Your task to perform on an android device: Open CNN.com Image 0: 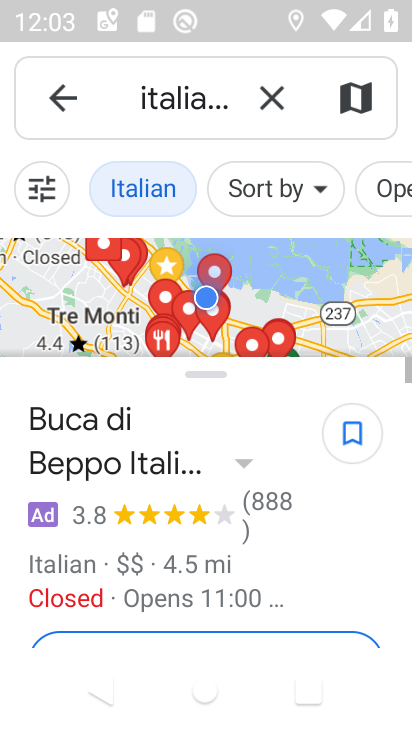
Step 0: press home button
Your task to perform on an android device: Open CNN.com Image 1: 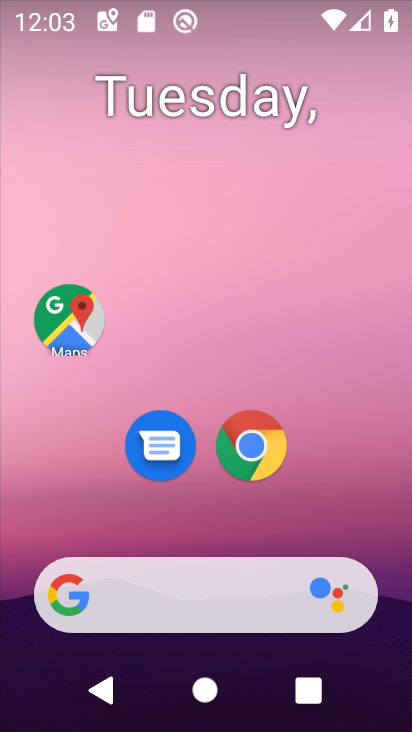
Step 1: click (257, 446)
Your task to perform on an android device: Open CNN.com Image 2: 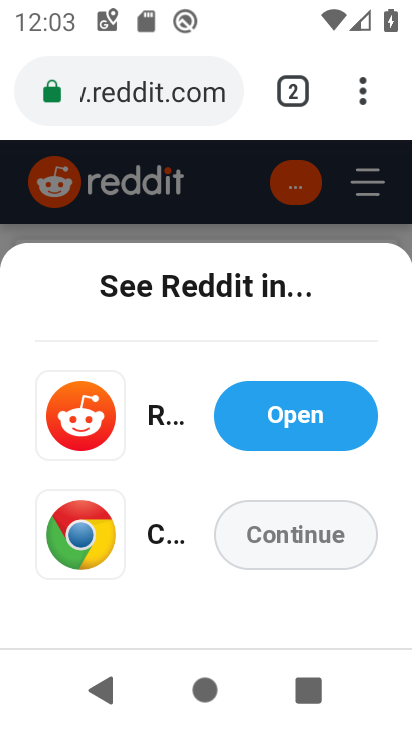
Step 2: click (358, 87)
Your task to perform on an android device: Open CNN.com Image 3: 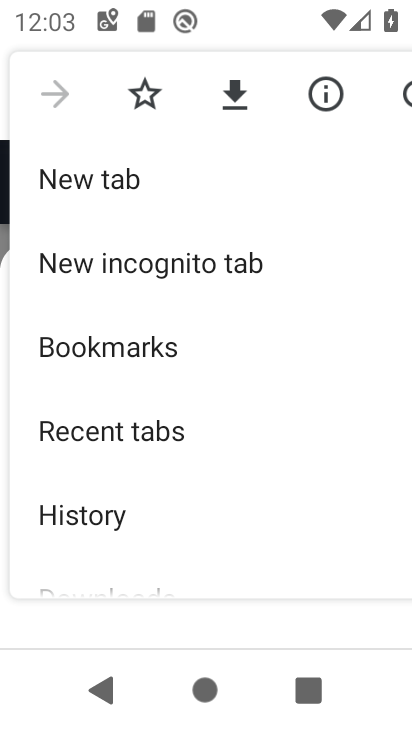
Step 3: click (116, 174)
Your task to perform on an android device: Open CNN.com Image 4: 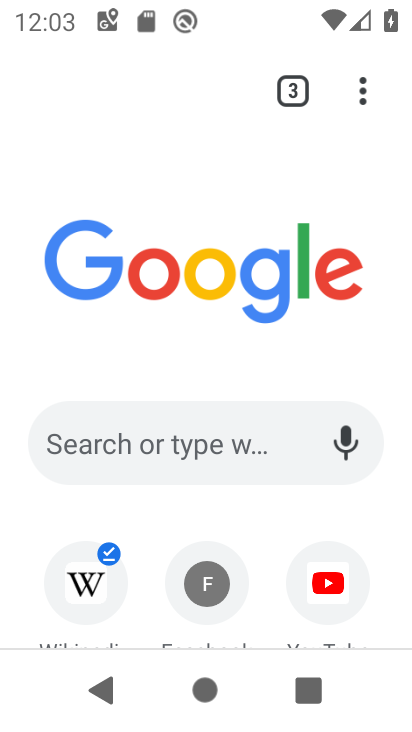
Step 4: click (171, 447)
Your task to perform on an android device: Open CNN.com Image 5: 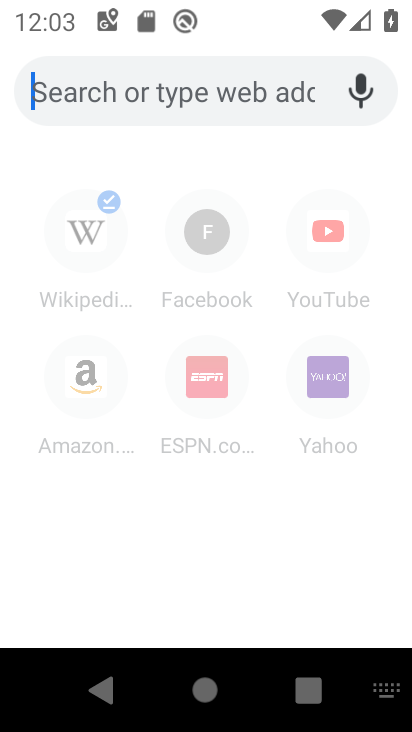
Step 5: type "cnn.com"
Your task to perform on an android device: Open CNN.com Image 6: 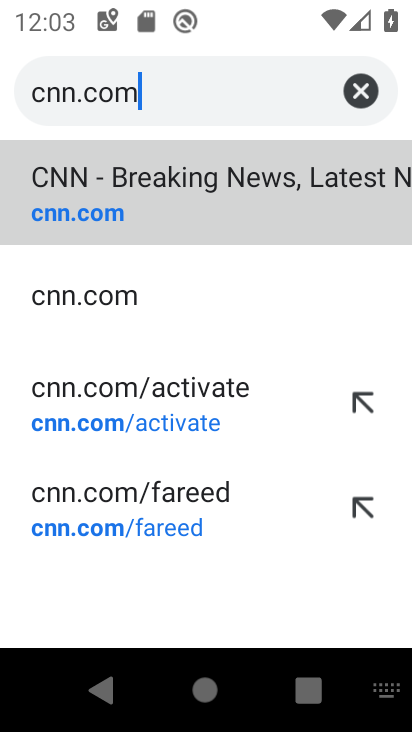
Step 6: click (170, 184)
Your task to perform on an android device: Open CNN.com Image 7: 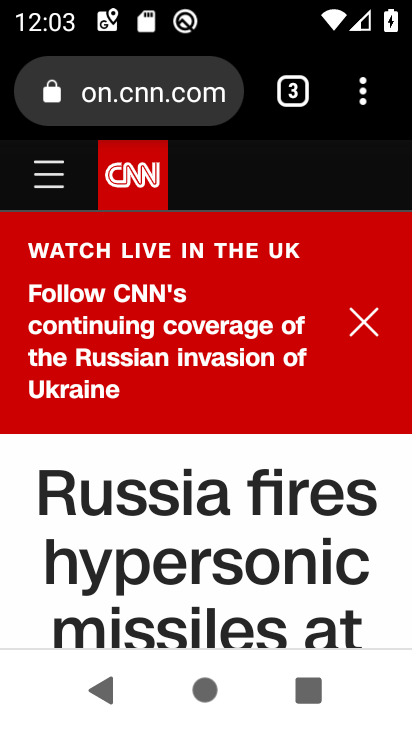
Step 7: task complete